Your task to perform on an android device: Go to Google Image 0: 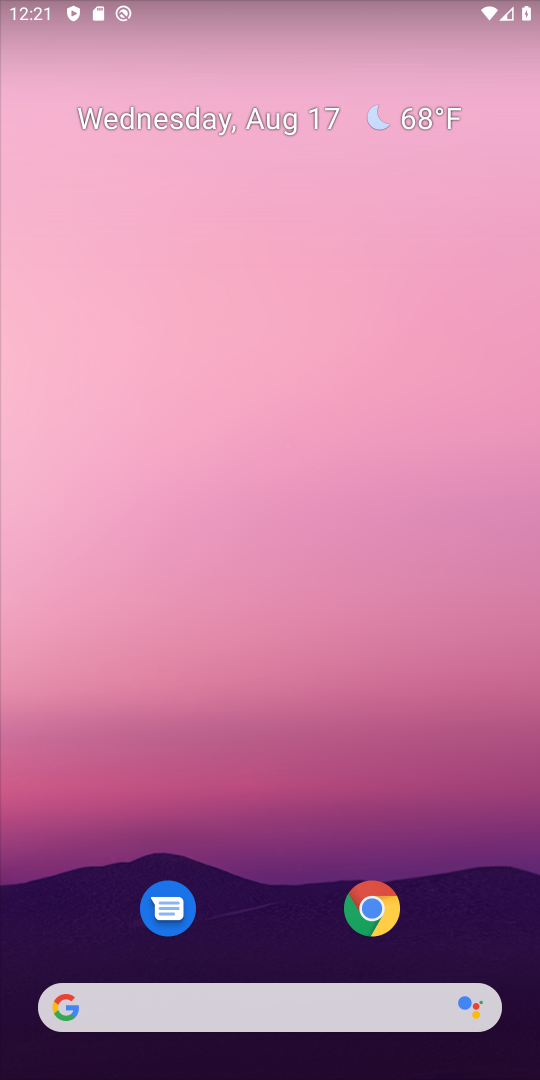
Step 0: drag from (283, 717) to (287, 272)
Your task to perform on an android device: Go to Google Image 1: 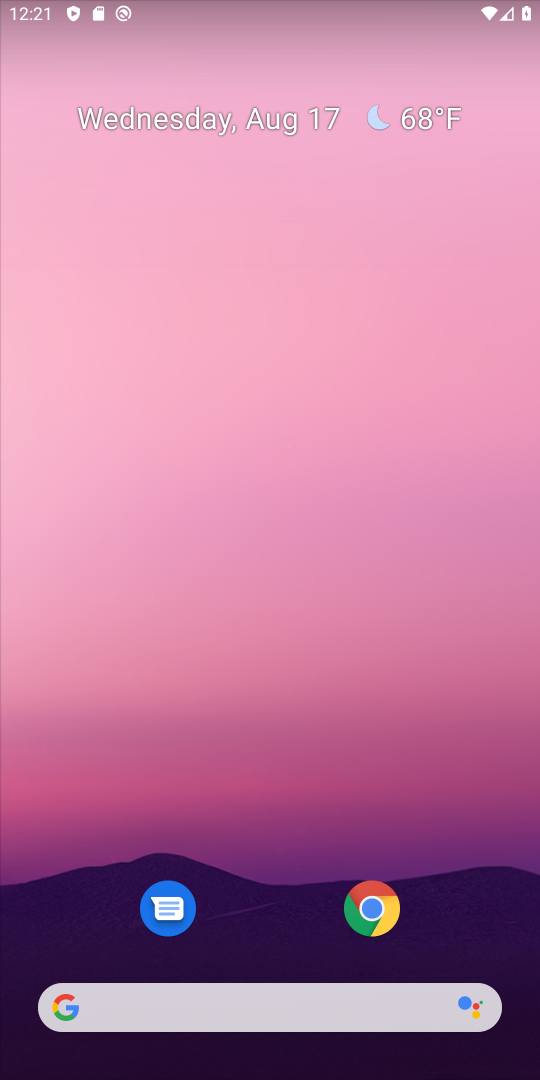
Step 1: drag from (273, 920) to (273, 160)
Your task to perform on an android device: Go to Google Image 2: 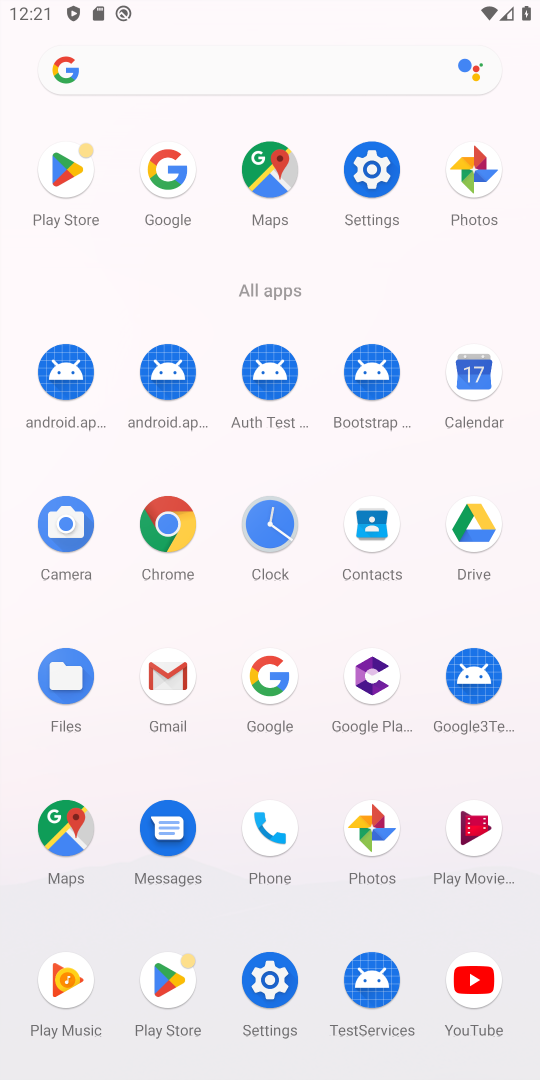
Step 2: click (289, 702)
Your task to perform on an android device: Go to Google Image 3: 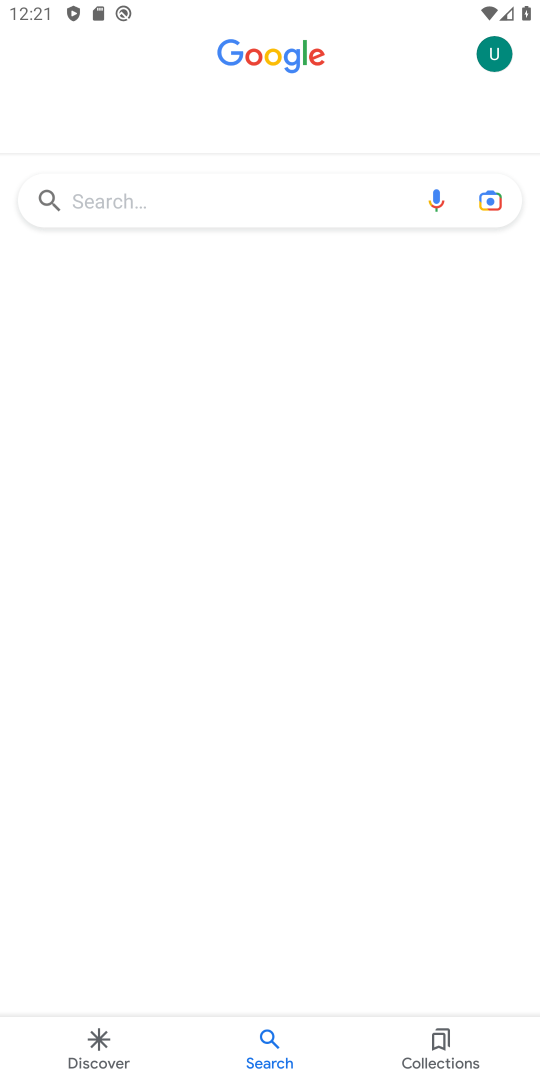
Step 3: task complete